Your task to perform on an android device: turn pop-ups on in chrome Image 0: 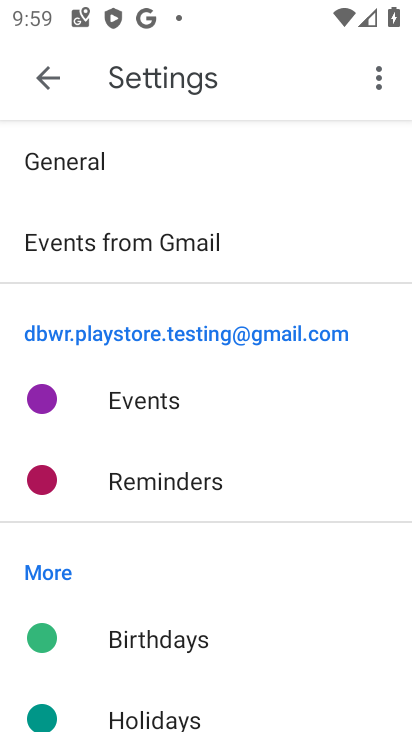
Step 0: press home button
Your task to perform on an android device: turn pop-ups on in chrome Image 1: 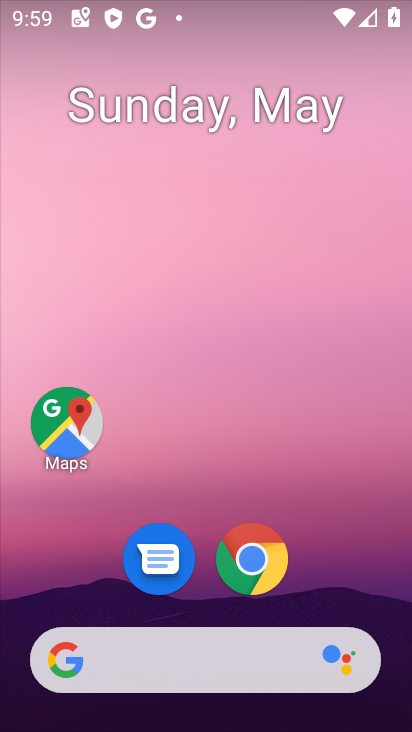
Step 1: drag from (236, 618) to (302, 26)
Your task to perform on an android device: turn pop-ups on in chrome Image 2: 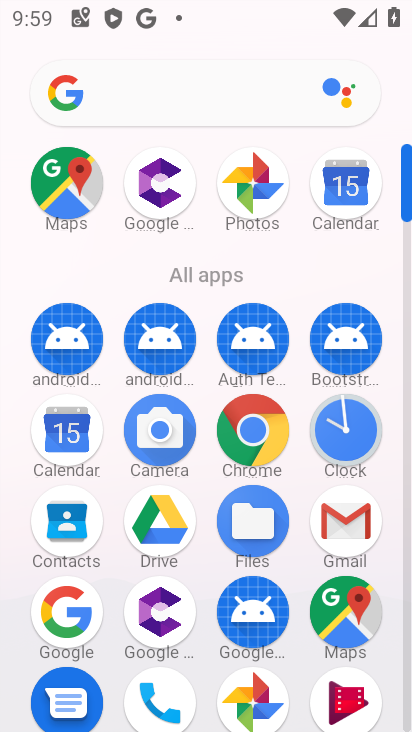
Step 2: click (256, 465)
Your task to perform on an android device: turn pop-ups on in chrome Image 3: 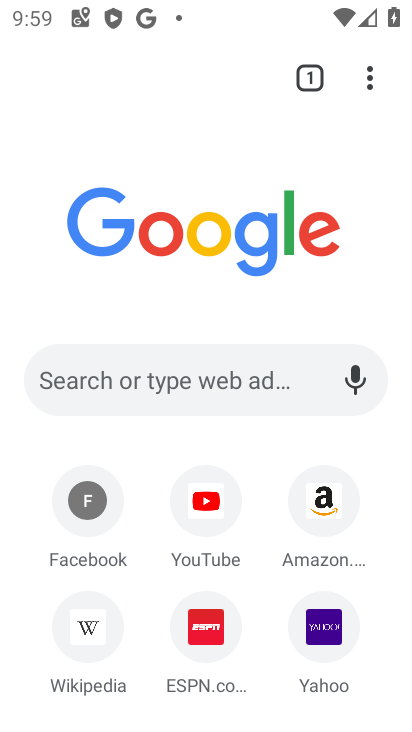
Step 3: click (368, 76)
Your task to perform on an android device: turn pop-ups on in chrome Image 4: 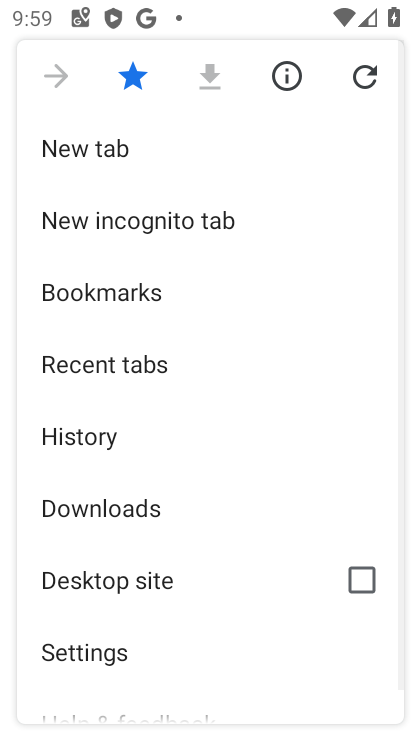
Step 4: click (124, 662)
Your task to perform on an android device: turn pop-ups on in chrome Image 5: 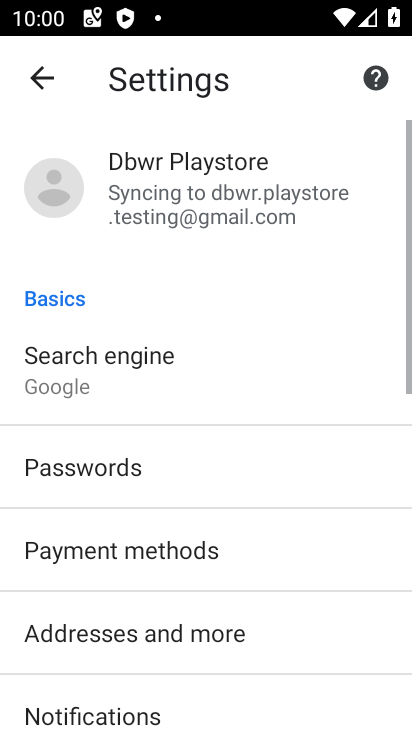
Step 5: drag from (126, 658) to (67, 194)
Your task to perform on an android device: turn pop-ups on in chrome Image 6: 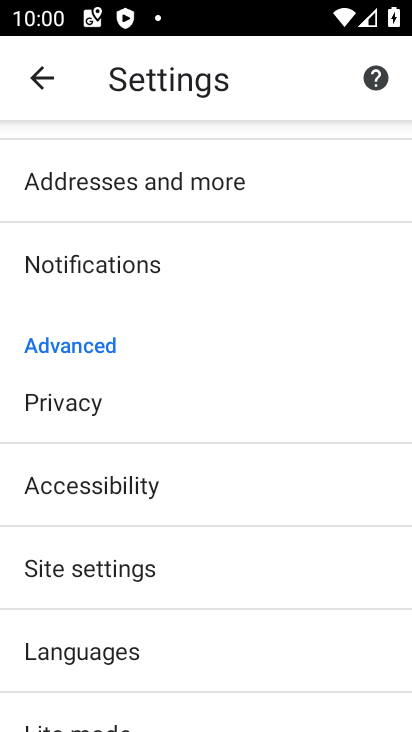
Step 6: click (104, 581)
Your task to perform on an android device: turn pop-ups on in chrome Image 7: 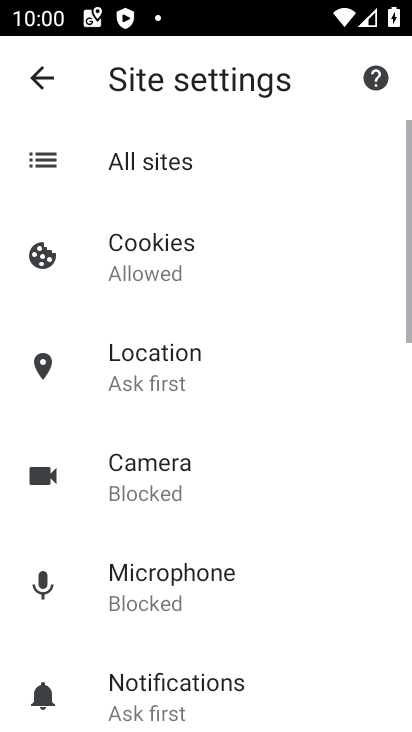
Step 7: drag from (175, 635) to (126, 173)
Your task to perform on an android device: turn pop-ups on in chrome Image 8: 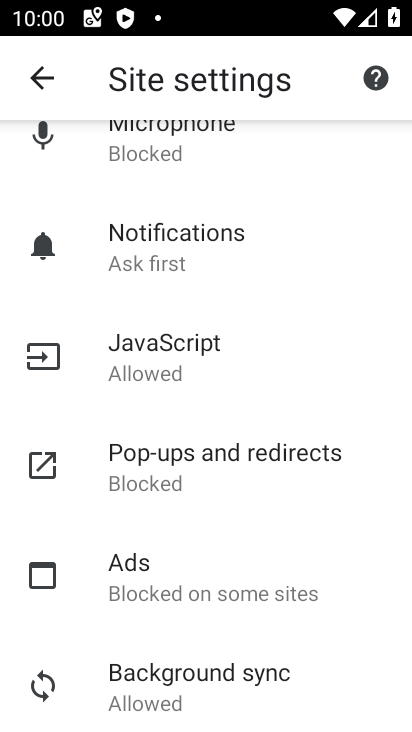
Step 8: click (157, 478)
Your task to perform on an android device: turn pop-ups on in chrome Image 9: 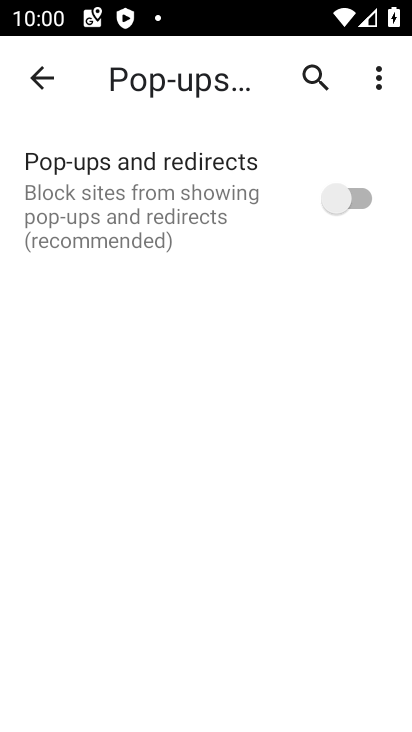
Step 9: click (361, 188)
Your task to perform on an android device: turn pop-ups on in chrome Image 10: 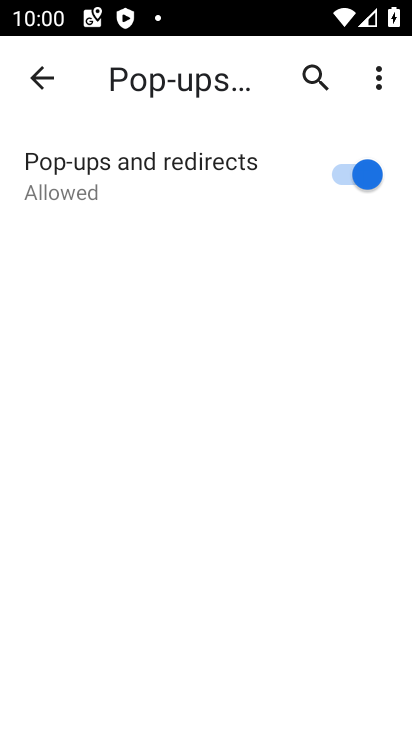
Step 10: task complete